Your task to perform on an android device: search for starred emails in the gmail app Image 0: 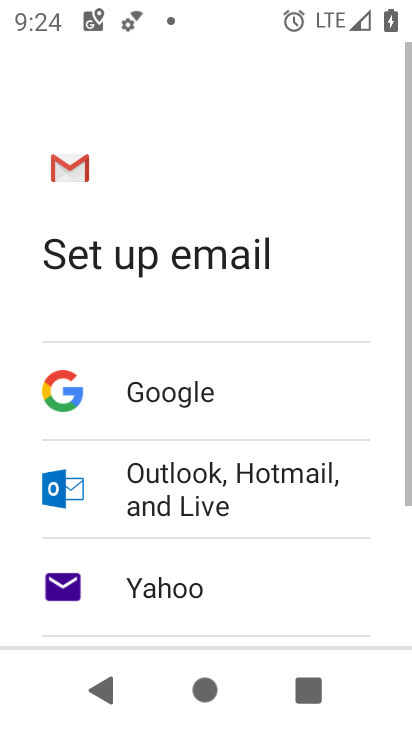
Step 0: press home button
Your task to perform on an android device: search for starred emails in the gmail app Image 1: 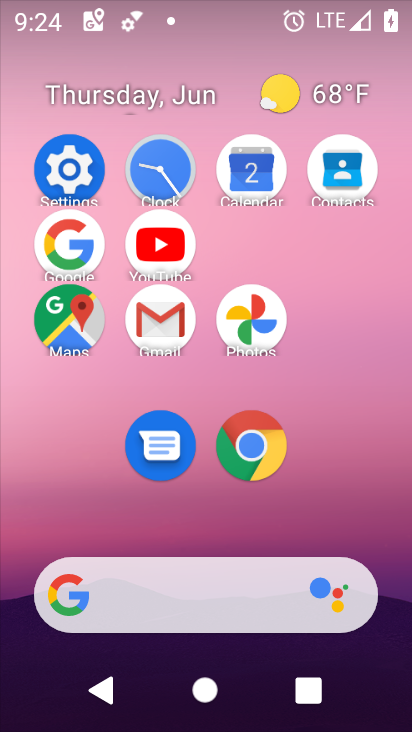
Step 1: click (183, 314)
Your task to perform on an android device: search for starred emails in the gmail app Image 2: 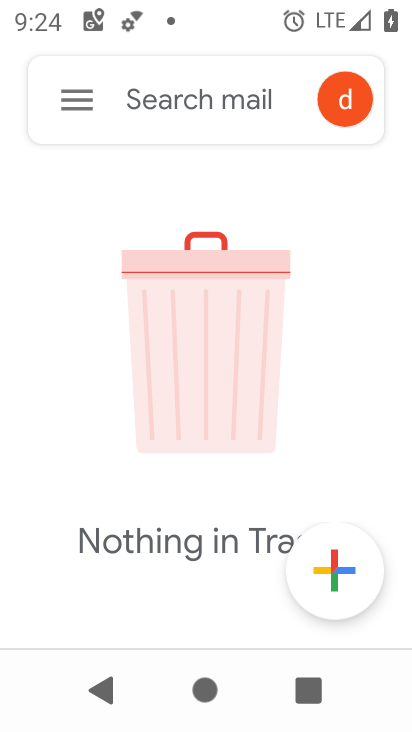
Step 2: click (90, 122)
Your task to perform on an android device: search for starred emails in the gmail app Image 3: 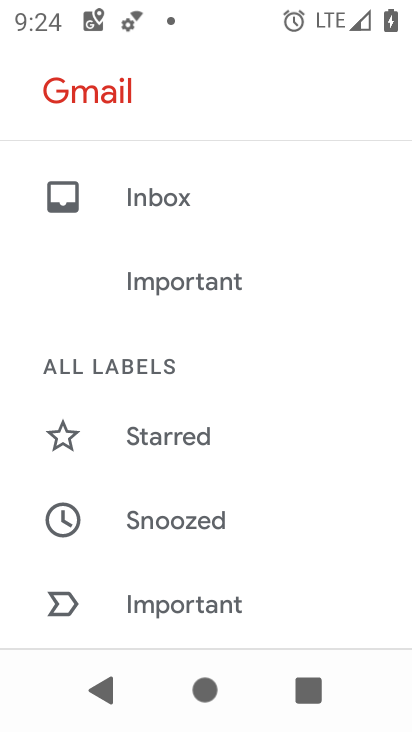
Step 3: drag from (268, 176) to (315, 627)
Your task to perform on an android device: search for starred emails in the gmail app Image 4: 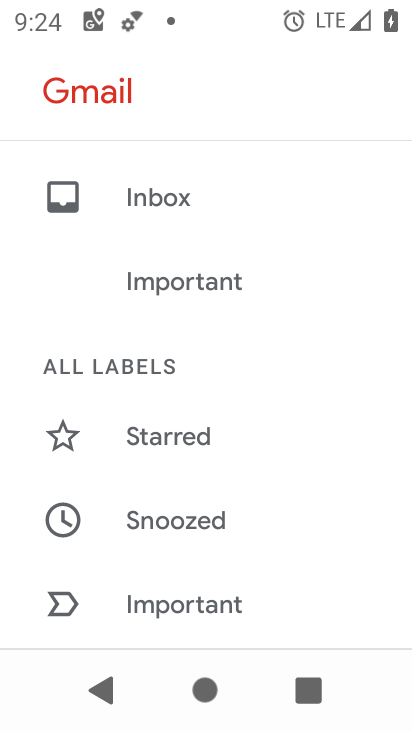
Step 4: click (266, 430)
Your task to perform on an android device: search for starred emails in the gmail app Image 5: 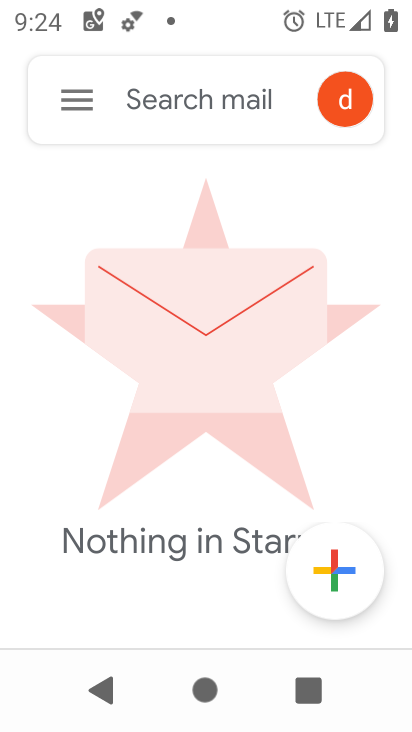
Step 5: task complete